Your task to perform on an android device: Open Google Maps Image 0: 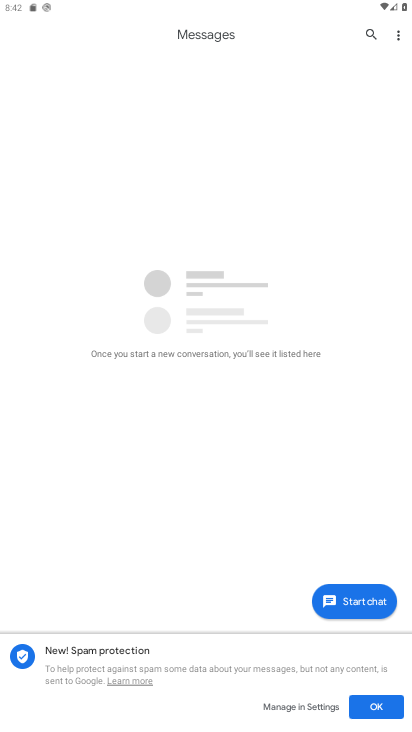
Step 0: press home button
Your task to perform on an android device: Open Google Maps Image 1: 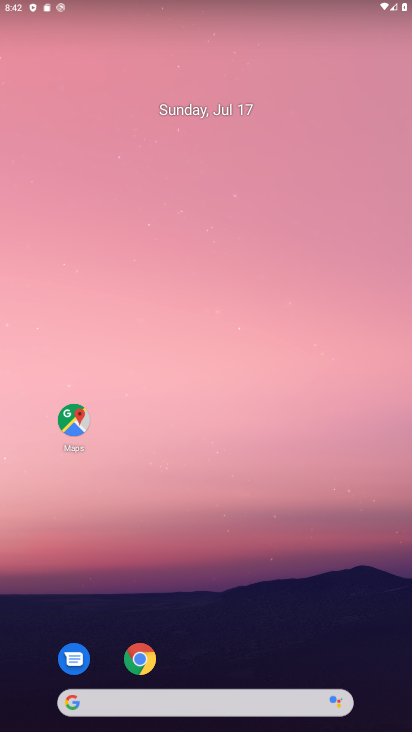
Step 1: click (65, 419)
Your task to perform on an android device: Open Google Maps Image 2: 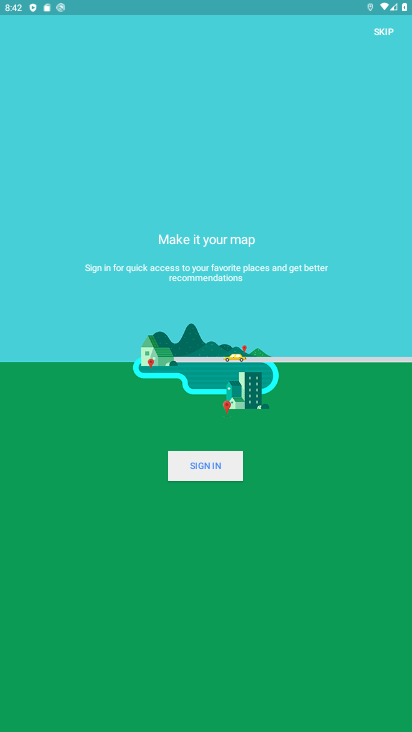
Step 2: click (209, 463)
Your task to perform on an android device: Open Google Maps Image 3: 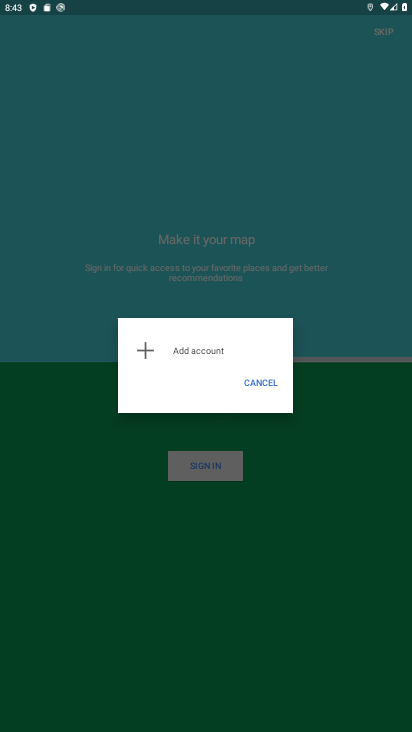
Step 3: click (389, 28)
Your task to perform on an android device: Open Google Maps Image 4: 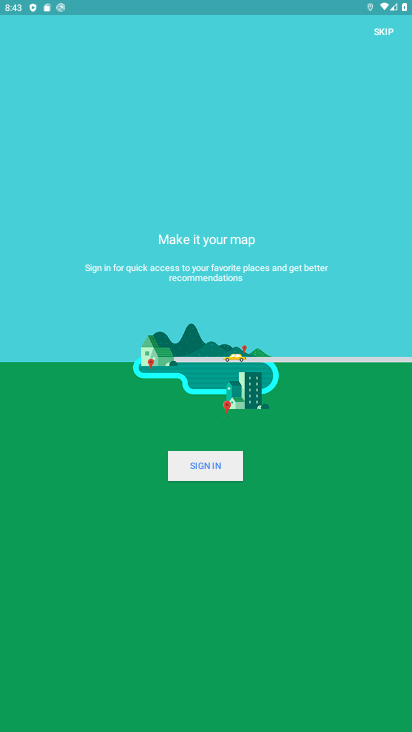
Step 4: click (386, 29)
Your task to perform on an android device: Open Google Maps Image 5: 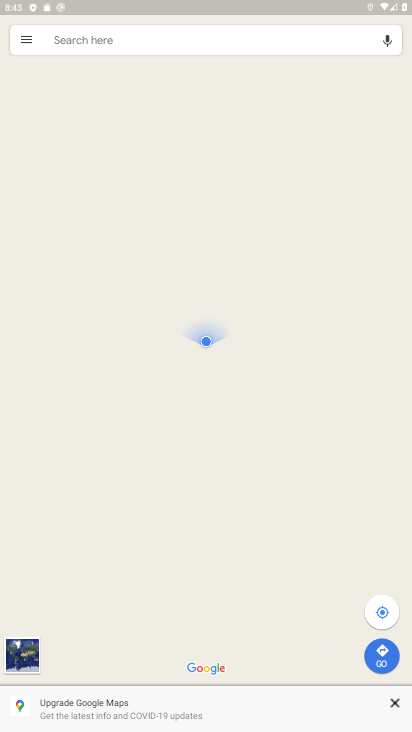
Step 5: task complete